Your task to perform on an android device: Do I have any events this weekend? Image 0: 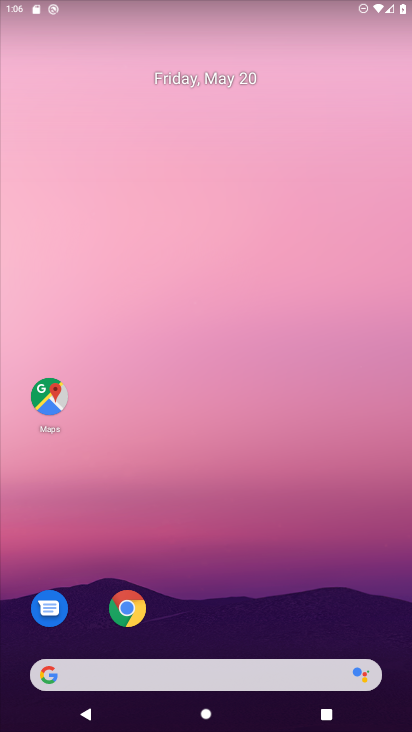
Step 0: drag from (371, 606) to (288, 55)
Your task to perform on an android device: Do I have any events this weekend? Image 1: 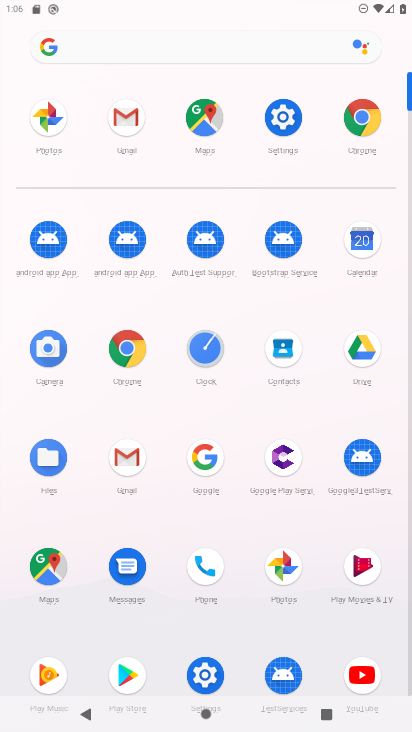
Step 1: click (344, 241)
Your task to perform on an android device: Do I have any events this weekend? Image 2: 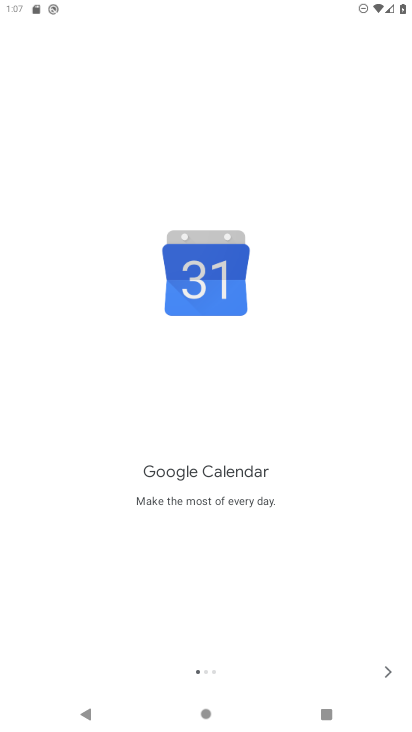
Step 2: click (387, 676)
Your task to perform on an android device: Do I have any events this weekend? Image 3: 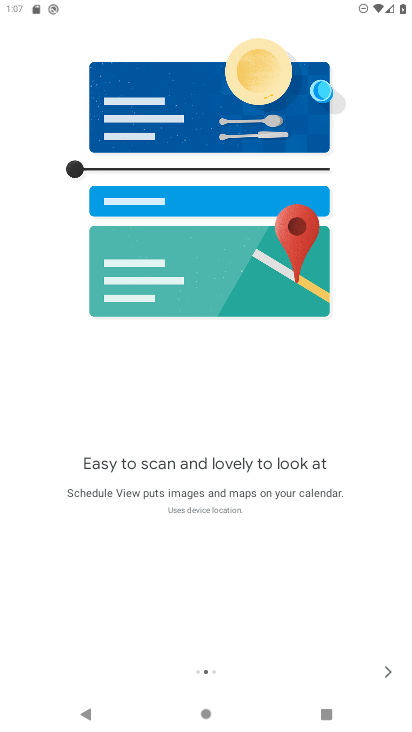
Step 3: click (387, 676)
Your task to perform on an android device: Do I have any events this weekend? Image 4: 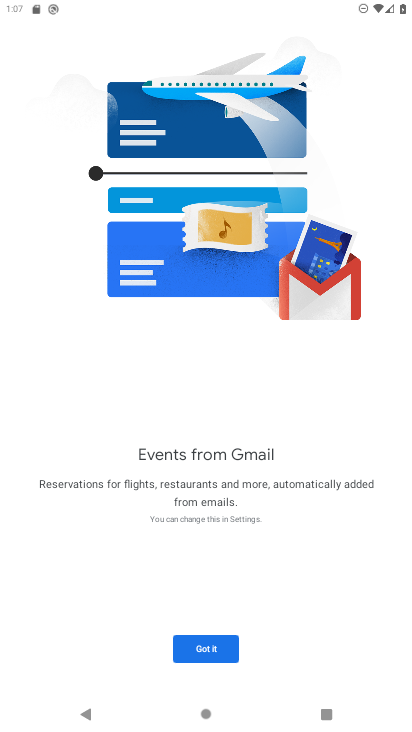
Step 4: click (190, 655)
Your task to perform on an android device: Do I have any events this weekend? Image 5: 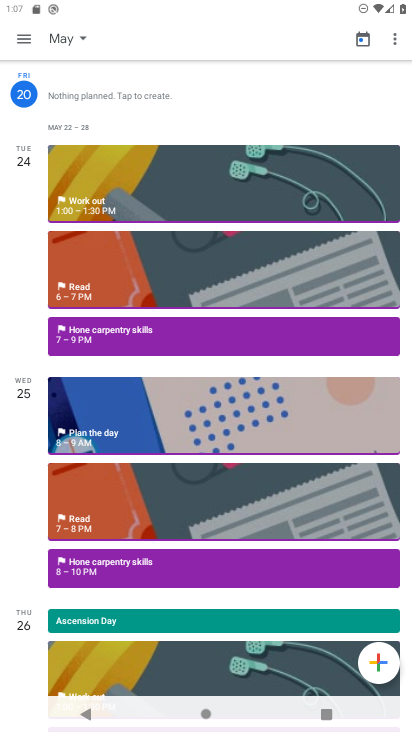
Step 5: click (73, 33)
Your task to perform on an android device: Do I have any events this weekend? Image 6: 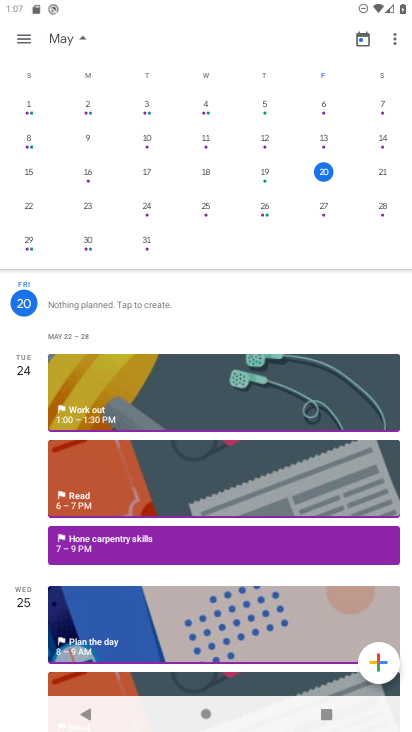
Step 6: click (79, 42)
Your task to perform on an android device: Do I have any events this weekend? Image 7: 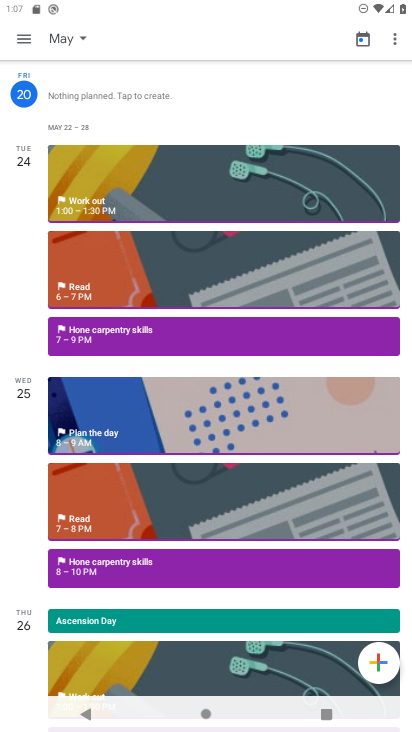
Step 7: task complete